Your task to perform on an android device: set the timer Image 0: 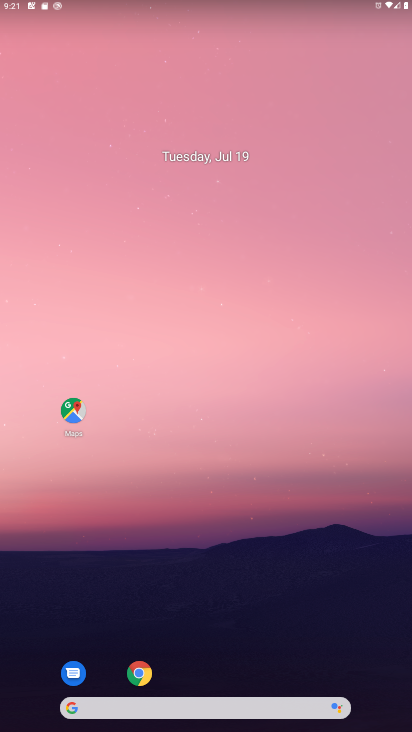
Step 0: drag from (386, 689) to (333, 194)
Your task to perform on an android device: set the timer Image 1: 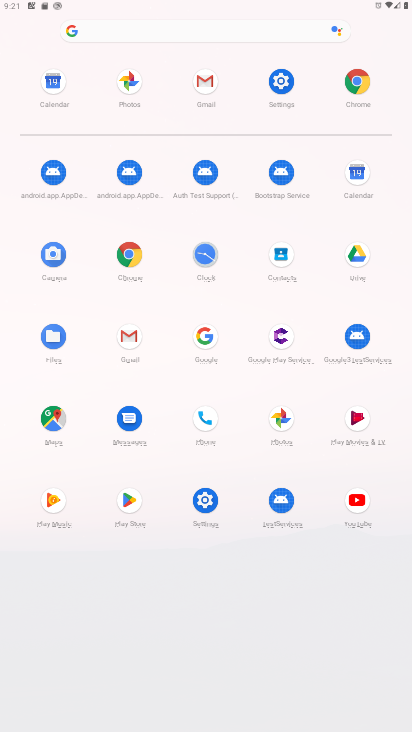
Step 1: click (207, 253)
Your task to perform on an android device: set the timer Image 2: 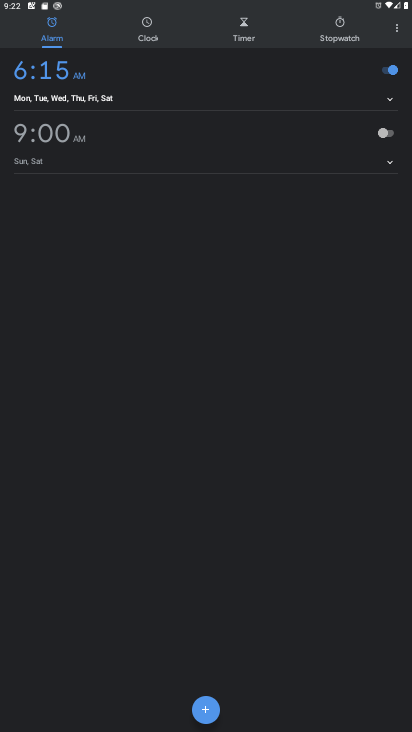
Step 2: click (244, 27)
Your task to perform on an android device: set the timer Image 3: 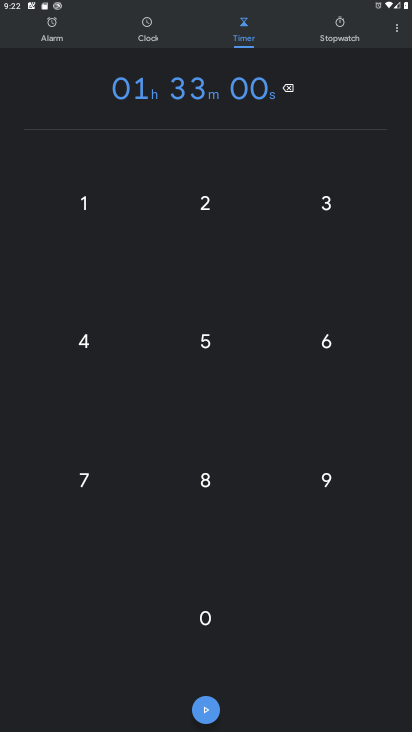
Step 3: task complete